Your task to perform on an android device: Open Google Maps Image 0: 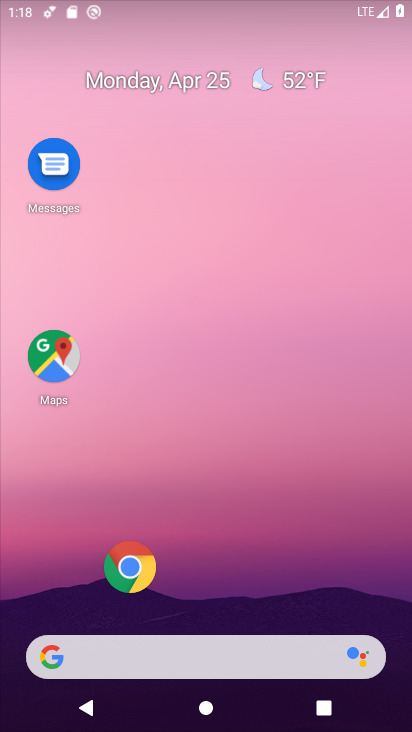
Step 0: drag from (240, 598) to (219, 147)
Your task to perform on an android device: Open Google Maps Image 1: 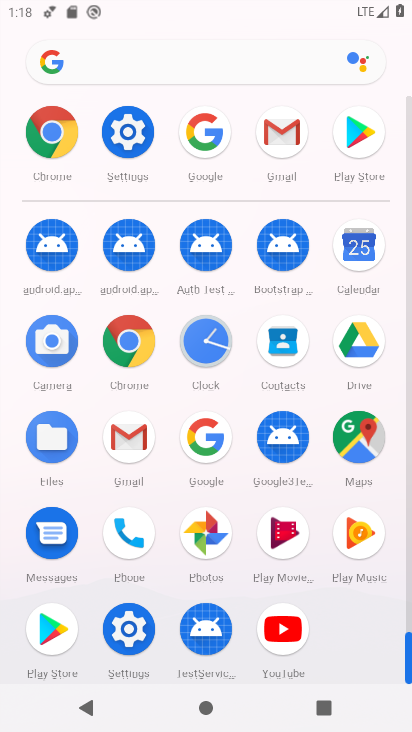
Step 1: click (371, 455)
Your task to perform on an android device: Open Google Maps Image 2: 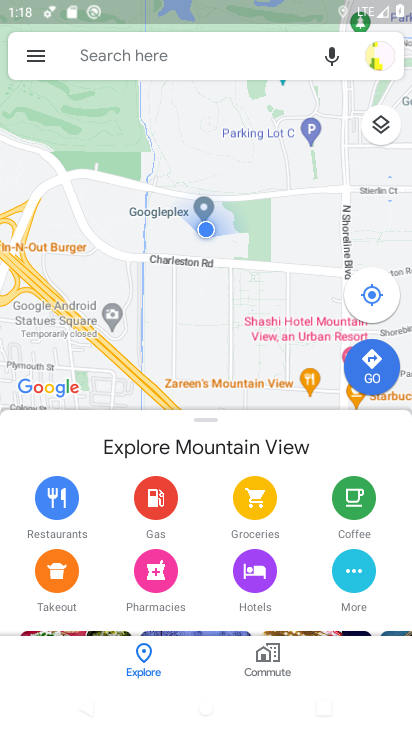
Step 2: task complete